Your task to perform on an android device: refresh tabs in the chrome app Image 0: 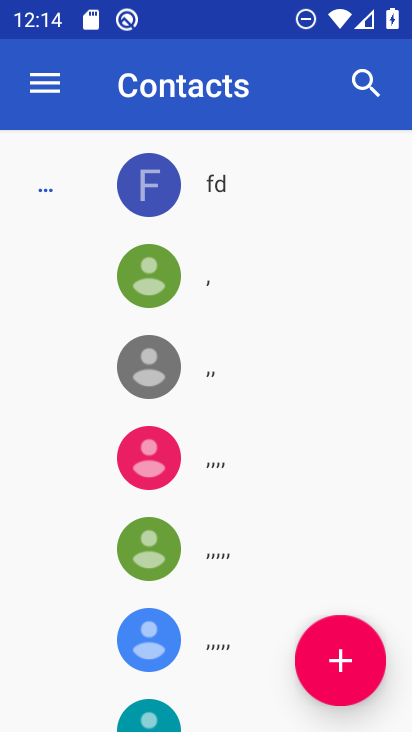
Step 0: drag from (203, 675) to (293, 8)
Your task to perform on an android device: refresh tabs in the chrome app Image 1: 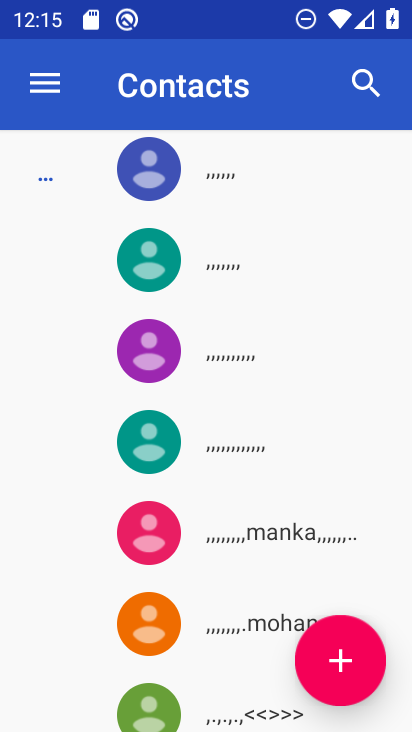
Step 1: press home button
Your task to perform on an android device: refresh tabs in the chrome app Image 2: 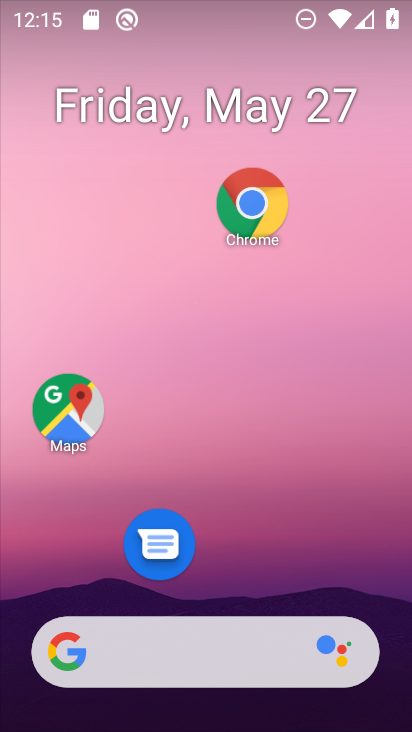
Step 2: click (246, 207)
Your task to perform on an android device: refresh tabs in the chrome app Image 3: 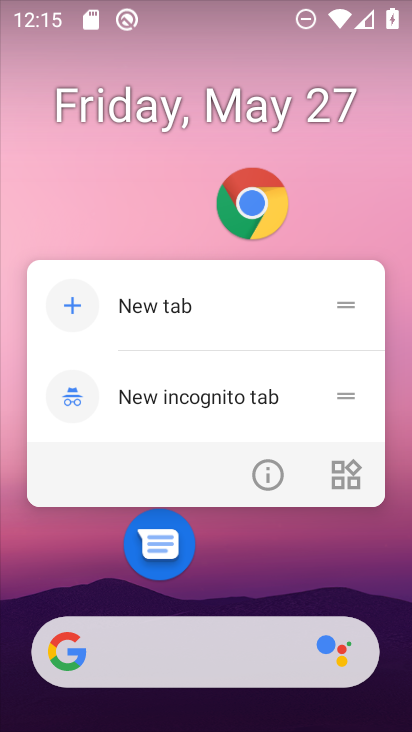
Step 3: click (275, 492)
Your task to perform on an android device: refresh tabs in the chrome app Image 4: 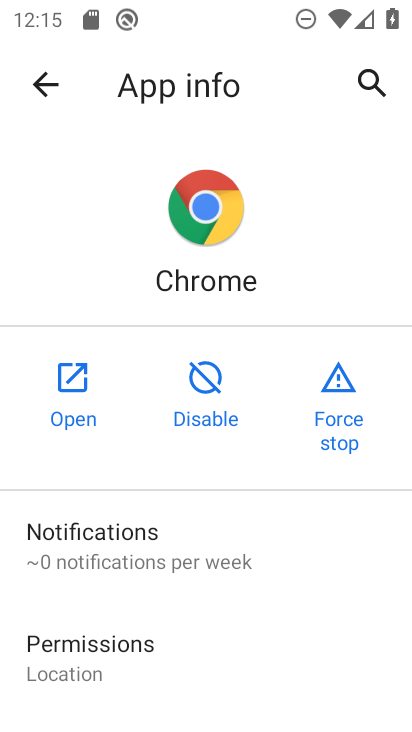
Step 4: click (90, 385)
Your task to perform on an android device: refresh tabs in the chrome app Image 5: 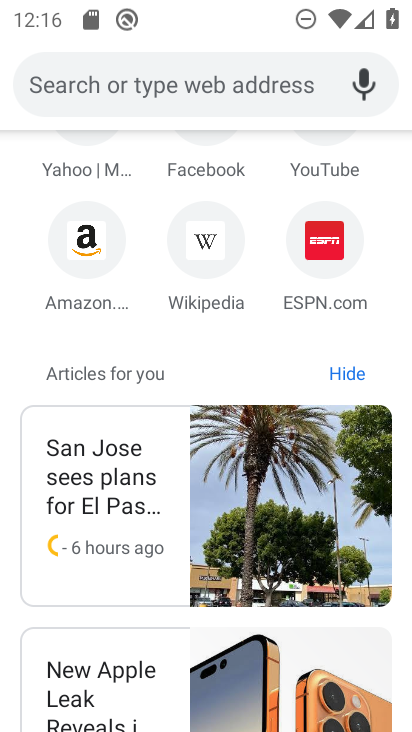
Step 5: drag from (194, 348) to (320, 731)
Your task to perform on an android device: refresh tabs in the chrome app Image 6: 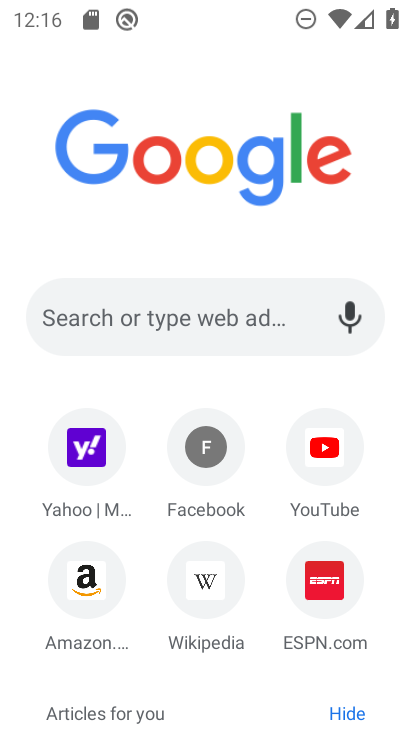
Step 6: drag from (368, 116) to (403, 500)
Your task to perform on an android device: refresh tabs in the chrome app Image 7: 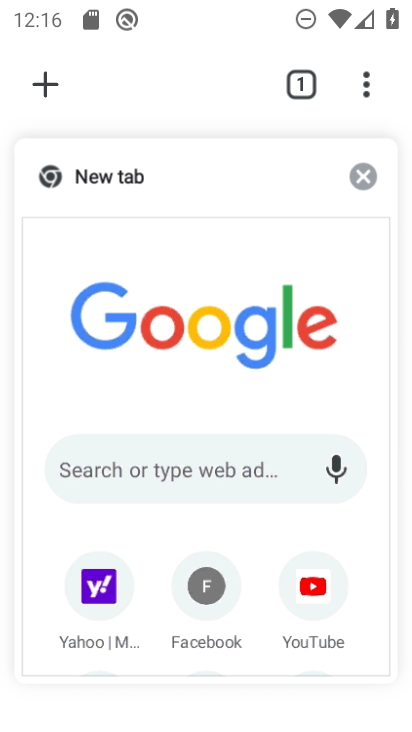
Step 7: click (315, 204)
Your task to perform on an android device: refresh tabs in the chrome app Image 8: 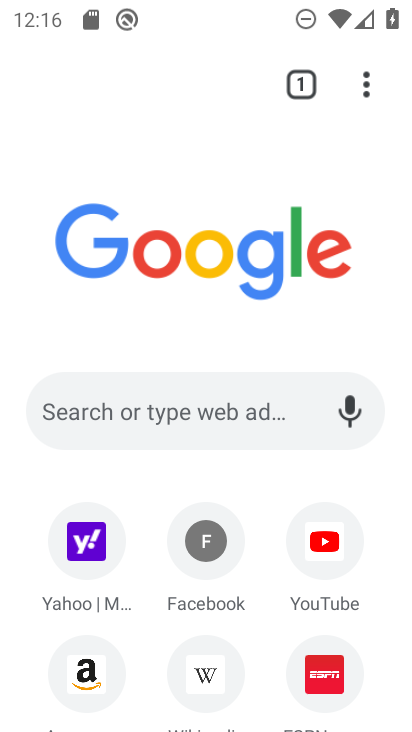
Step 8: click (363, 87)
Your task to perform on an android device: refresh tabs in the chrome app Image 9: 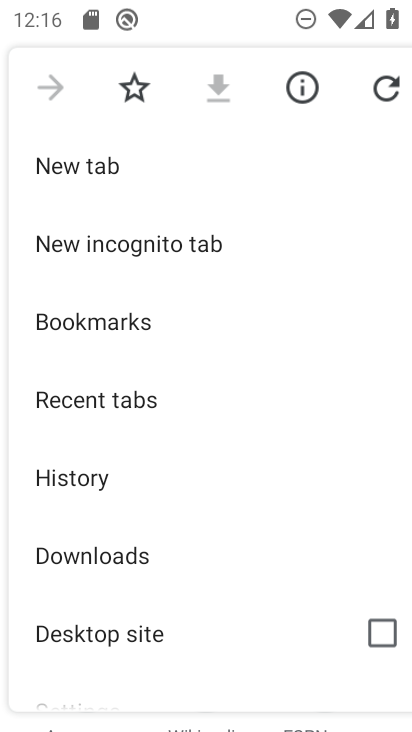
Step 9: click (370, 87)
Your task to perform on an android device: refresh tabs in the chrome app Image 10: 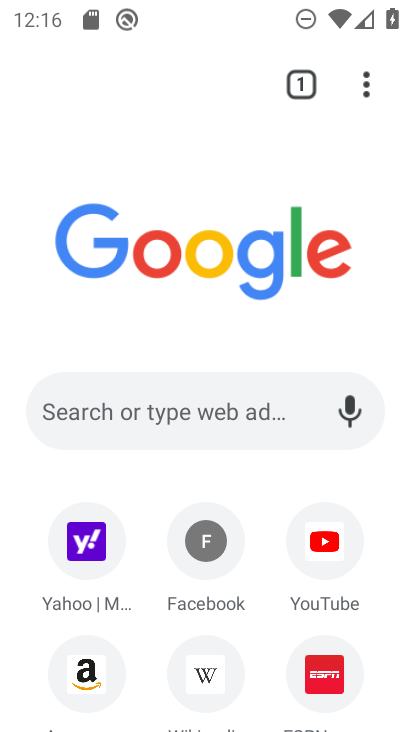
Step 10: task complete